Your task to perform on an android device: turn pop-ups off in chrome Image 0: 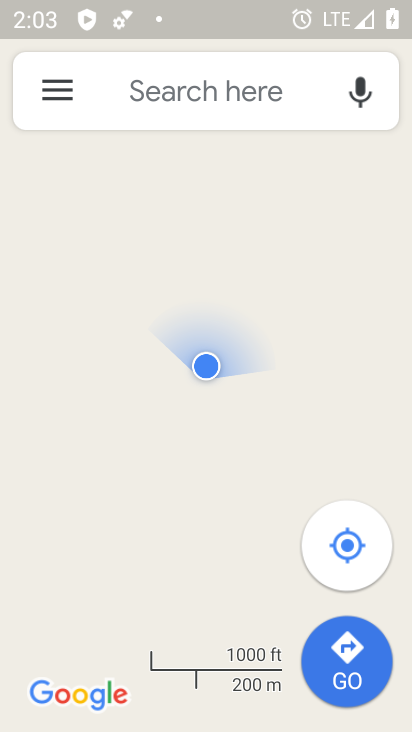
Step 0: press back button
Your task to perform on an android device: turn pop-ups off in chrome Image 1: 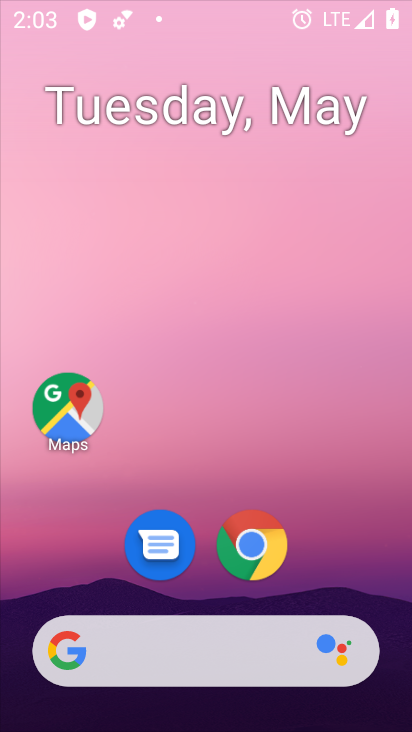
Step 1: press back button
Your task to perform on an android device: turn pop-ups off in chrome Image 2: 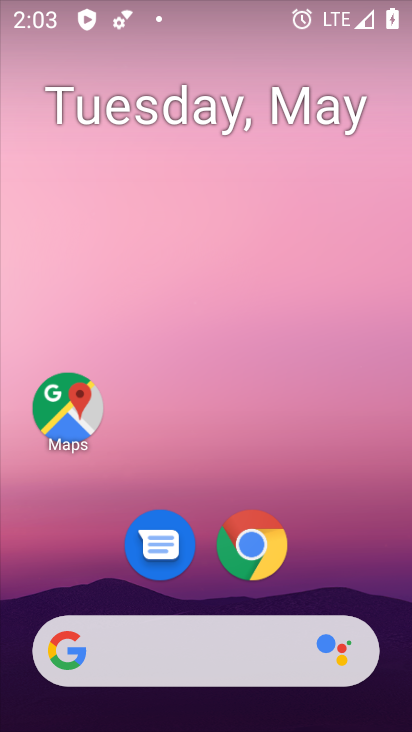
Step 2: drag from (357, 551) to (279, 16)
Your task to perform on an android device: turn pop-ups off in chrome Image 3: 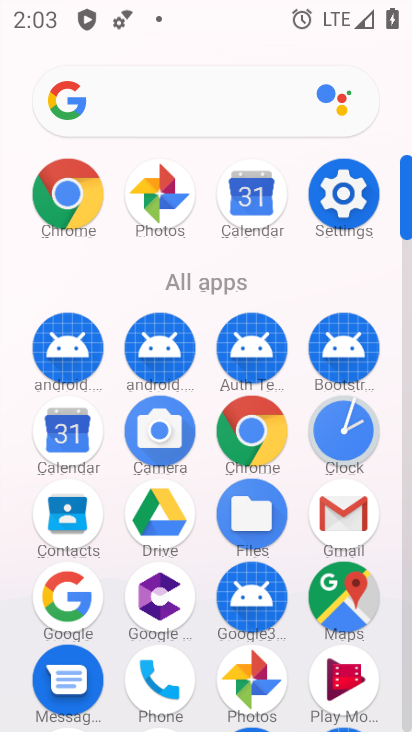
Step 3: drag from (26, 620) to (20, 326)
Your task to perform on an android device: turn pop-ups off in chrome Image 4: 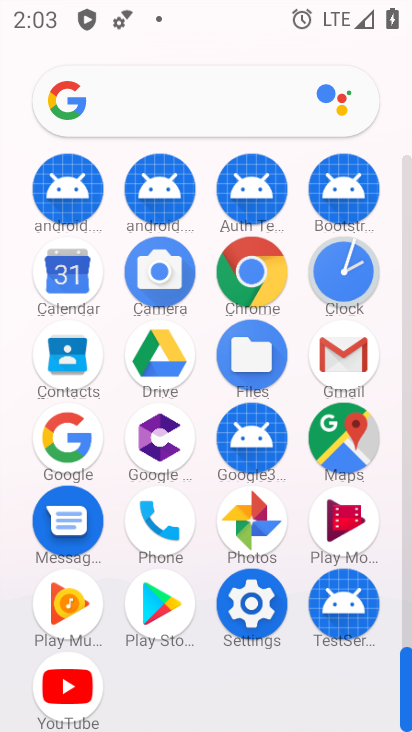
Step 4: click (248, 268)
Your task to perform on an android device: turn pop-ups off in chrome Image 5: 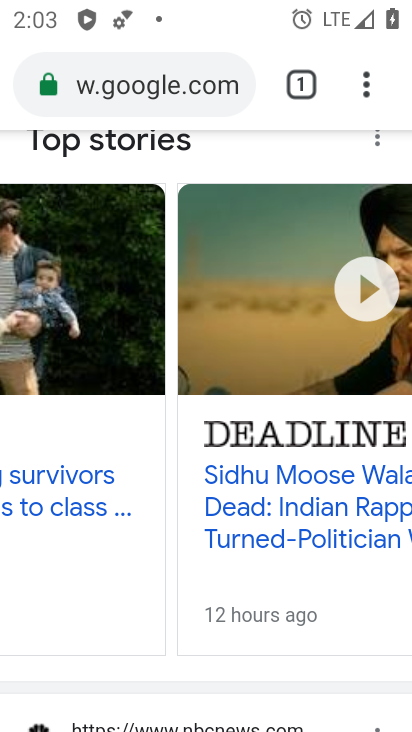
Step 5: drag from (366, 78) to (122, 592)
Your task to perform on an android device: turn pop-ups off in chrome Image 6: 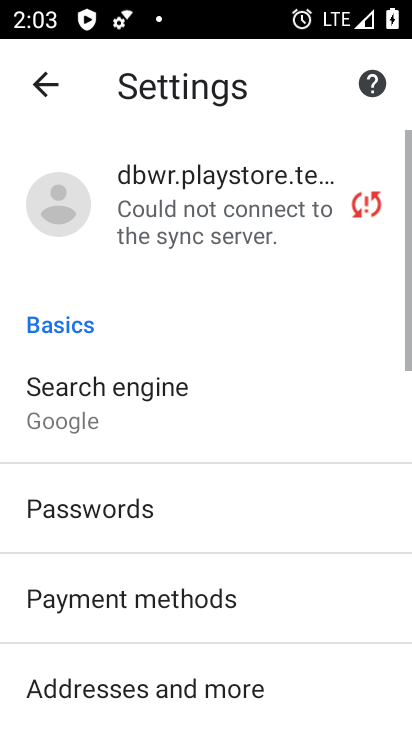
Step 6: drag from (234, 632) to (244, 247)
Your task to perform on an android device: turn pop-ups off in chrome Image 7: 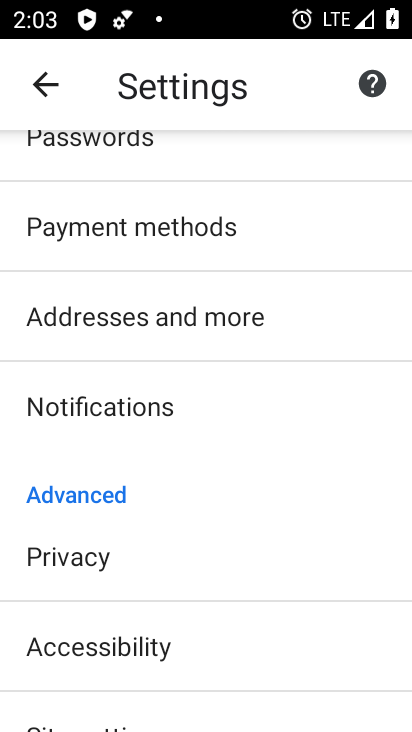
Step 7: drag from (271, 636) to (269, 266)
Your task to perform on an android device: turn pop-ups off in chrome Image 8: 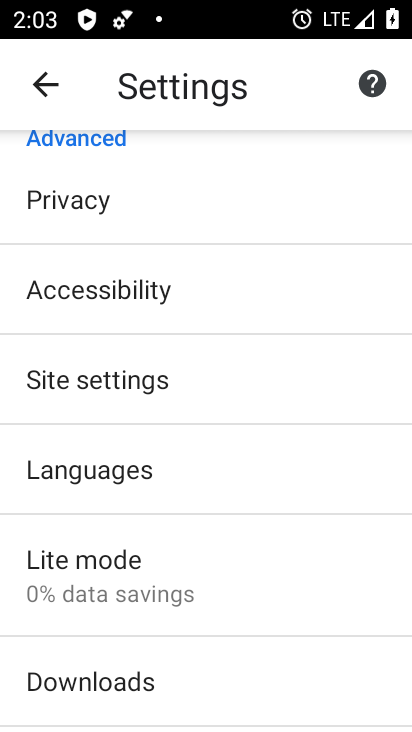
Step 8: click (123, 371)
Your task to perform on an android device: turn pop-ups off in chrome Image 9: 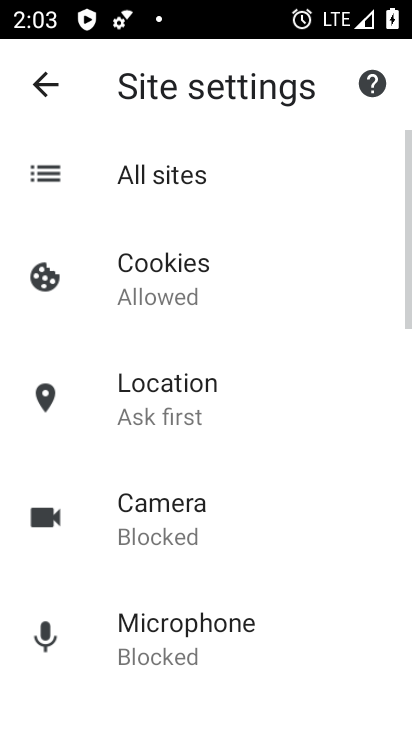
Step 9: drag from (275, 598) to (269, 158)
Your task to perform on an android device: turn pop-ups off in chrome Image 10: 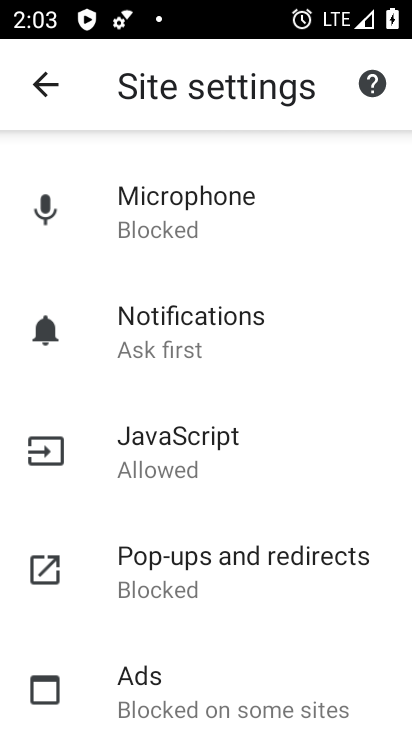
Step 10: drag from (296, 637) to (329, 260)
Your task to perform on an android device: turn pop-ups off in chrome Image 11: 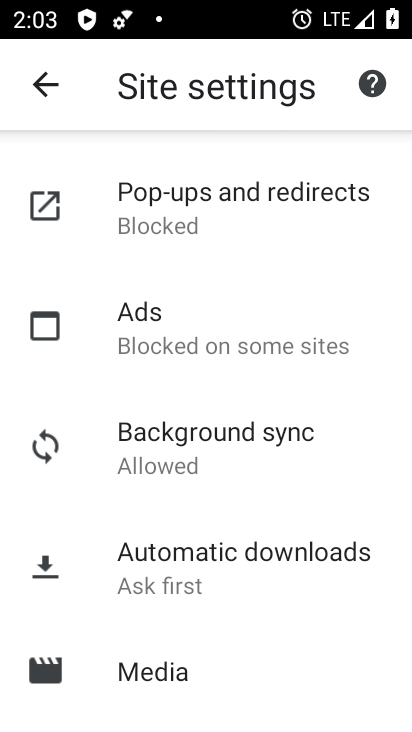
Step 11: drag from (290, 259) to (307, 596)
Your task to perform on an android device: turn pop-ups off in chrome Image 12: 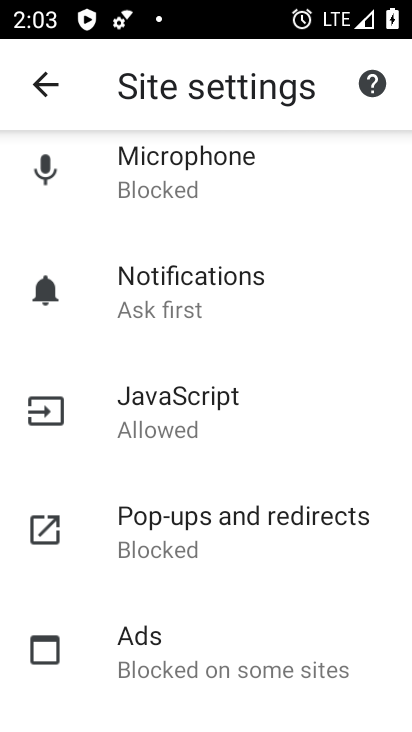
Step 12: drag from (294, 357) to (344, 608)
Your task to perform on an android device: turn pop-ups off in chrome Image 13: 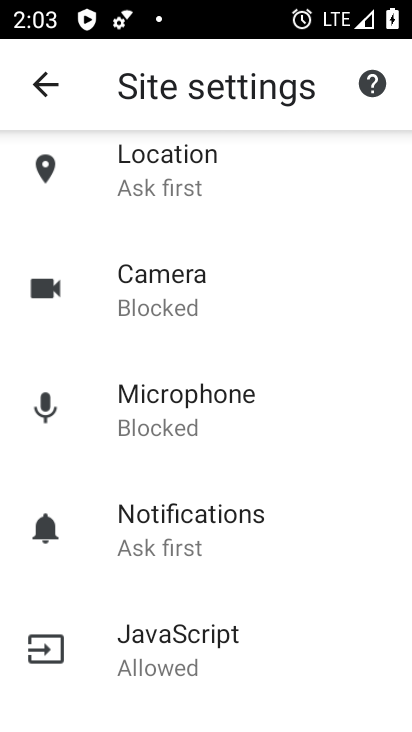
Step 13: drag from (280, 662) to (317, 304)
Your task to perform on an android device: turn pop-ups off in chrome Image 14: 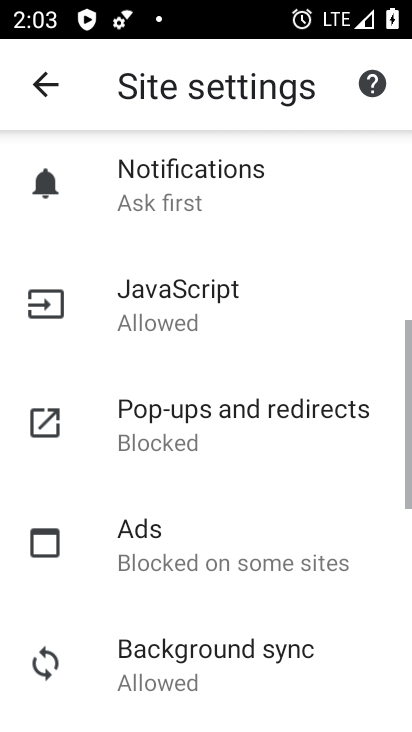
Step 14: click (189, 414)
Your task to perform on an android device: turn pop-ups off in chrome Image 15: 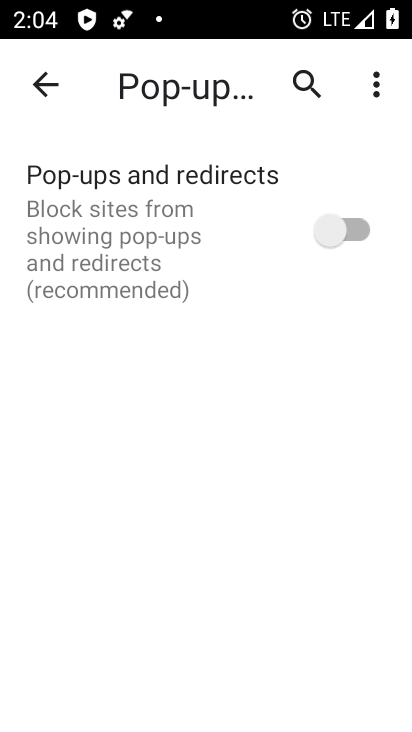
Step 15: task complete